Your task to perform on an android device: visit the assistant section in the google photos Image 0: 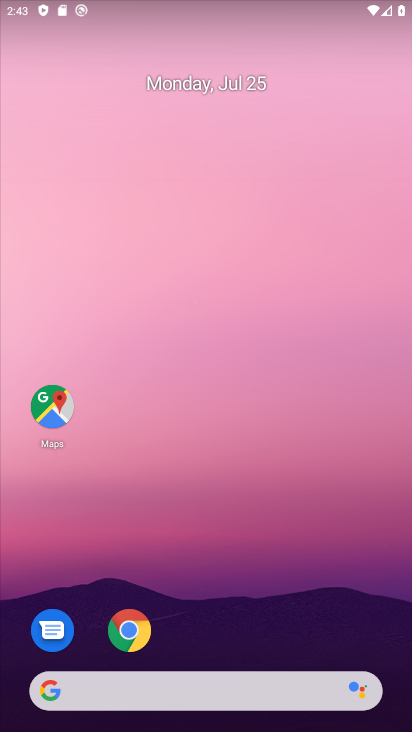
Step 0: drag from (290, 625) to (259, 100)
Your task to perform on an android device: visit the assistant section in the google photos Image 1: 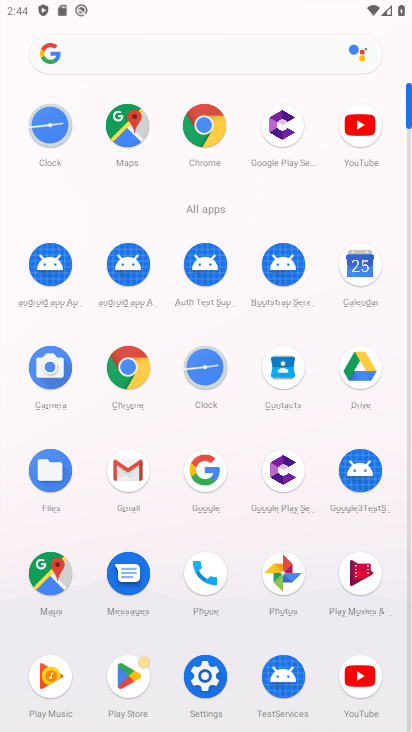
Step 1: click (278, 580)
Your task to perform on an android device: visit the assistant section in the google photos Image 2: 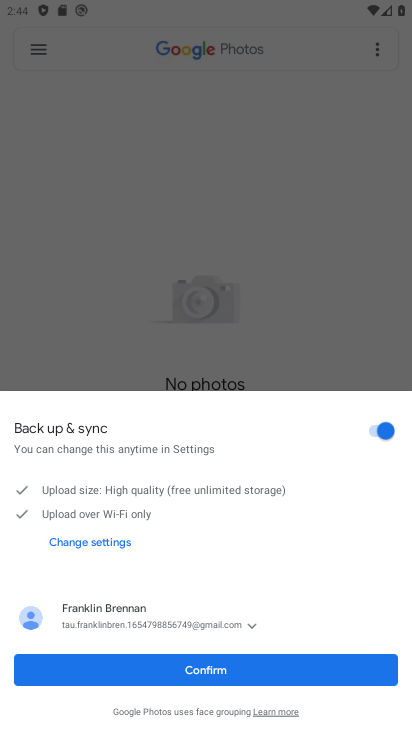
Step 2: click (101, 674)
Your task to perform on an android device: visit the assistant section in the google photos Image 3: 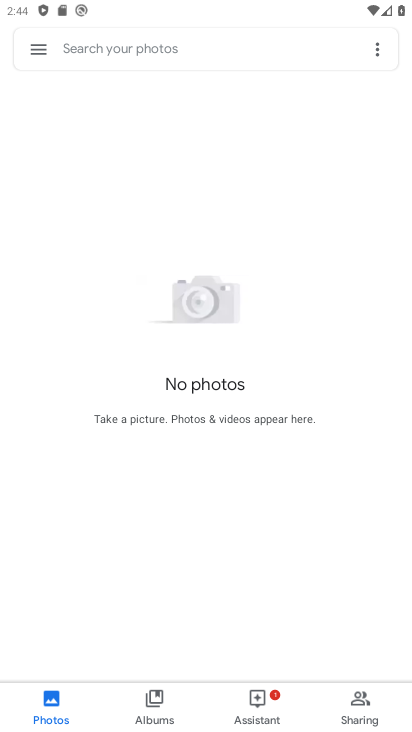
Step 3: click (271, 692)
Your task to perform on an android device: visit the assistant section in the google photos Image 4: 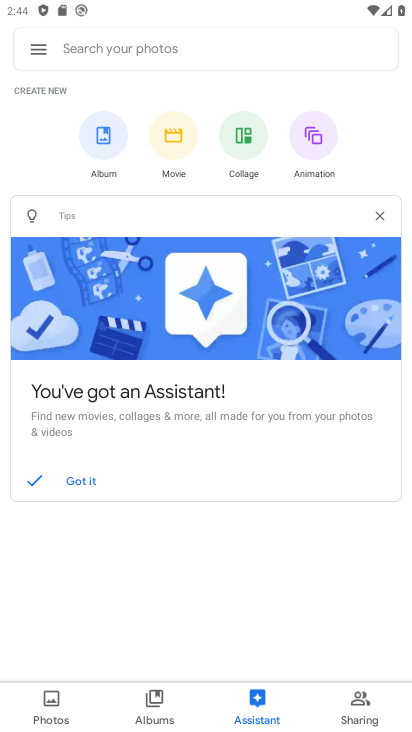
Step 4: task complete